Your task to perform on an android device: star an email in the gmail app Image 0: 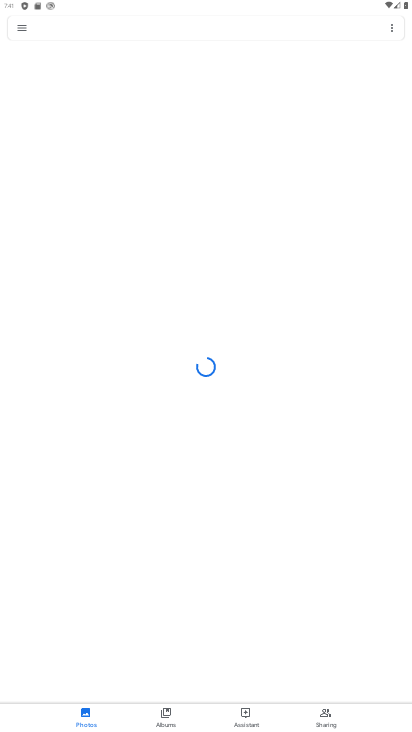
Step 0: drag from (254, 611) to (316, 394)
Your task to perform on an android device: star an email in the gmail app Image 1: 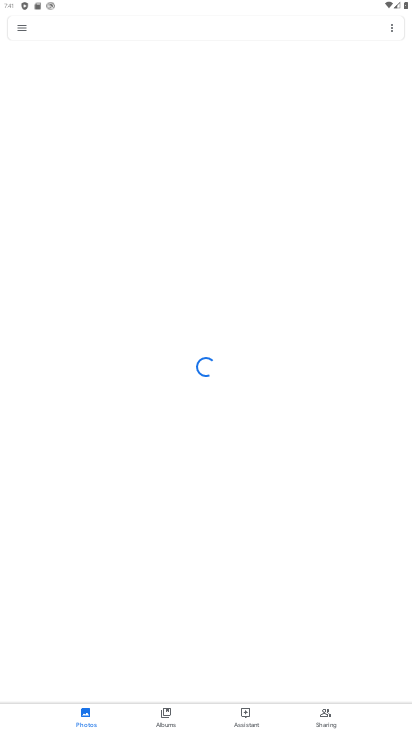
Step 1: press home button
Your task to perform on an android device: star an email in the gmail app Image 2: 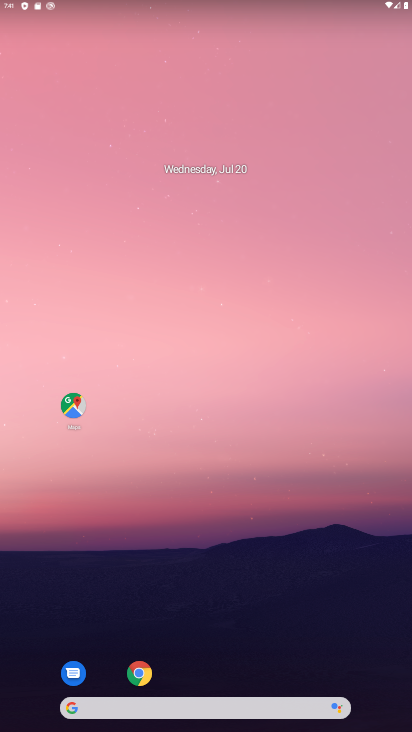
Step 2: drag from (182, 685) to (249, 78)
Your task to perform on an android device: star an email in the gmail app Image 3: 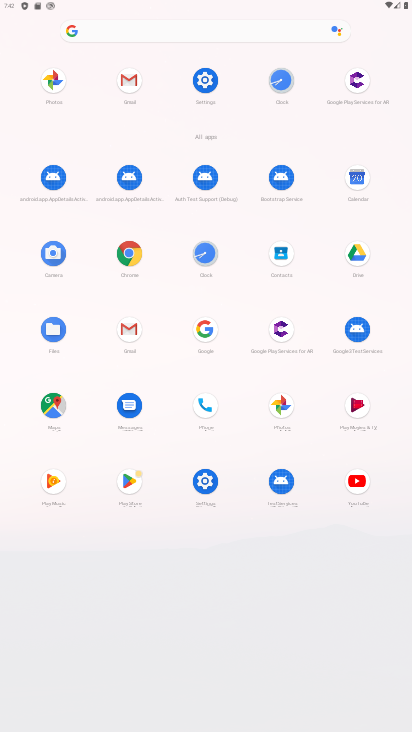
Step 3: click (128, 324)
Your task to perform on an android device: star an email in the gmail app Image 4: 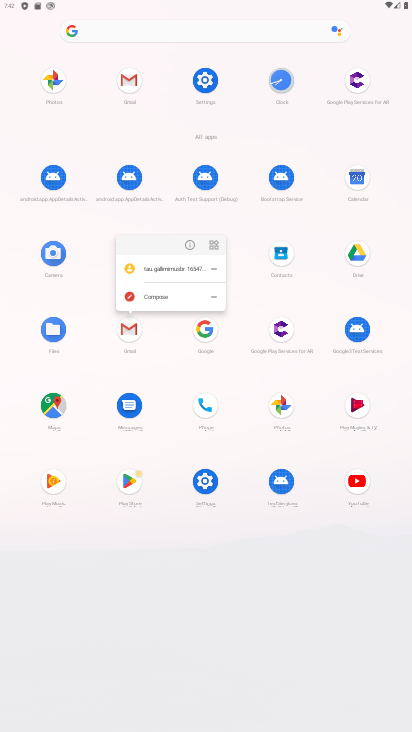
Step 4: click (192, 244)
Your task to perform on an android device: star an email in the gmail app Image 5: 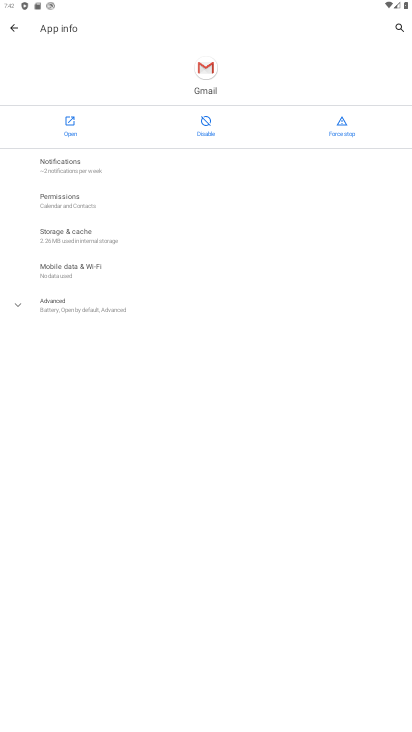
Step 5: click (70, 112)
Your task to perform on an android device: star an email in the gmail app Image 6: 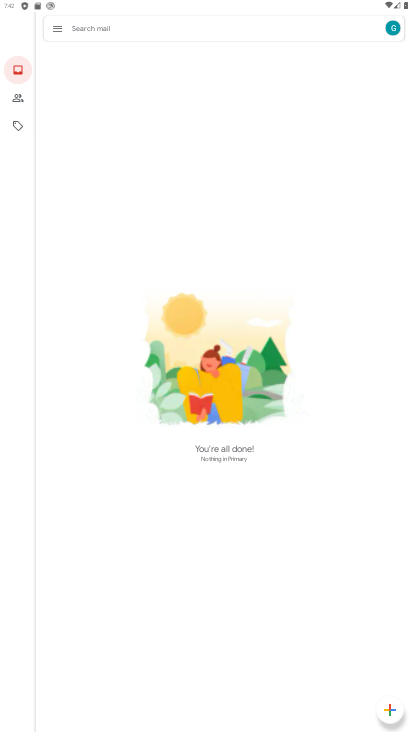
Step 6: drag from (263, 425) to (246, 338)
Your task to perform on an android device: star an email in the gmail app Image 7: 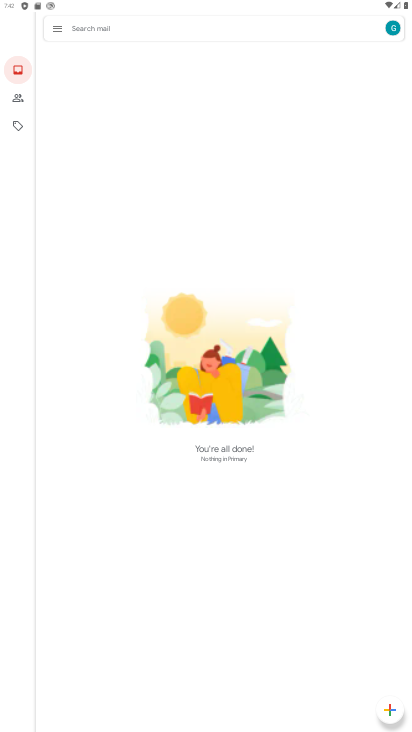
Step 7: click (59, 29)
Your task to perform on an android device: star an email in the gmail app Image 8: 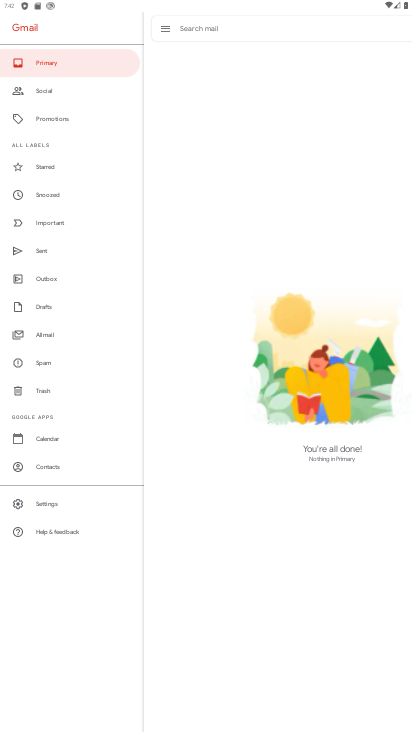
Step 8: click (392, 230)
Your task to perform on an android device: star an email in the gmail app Image 9: 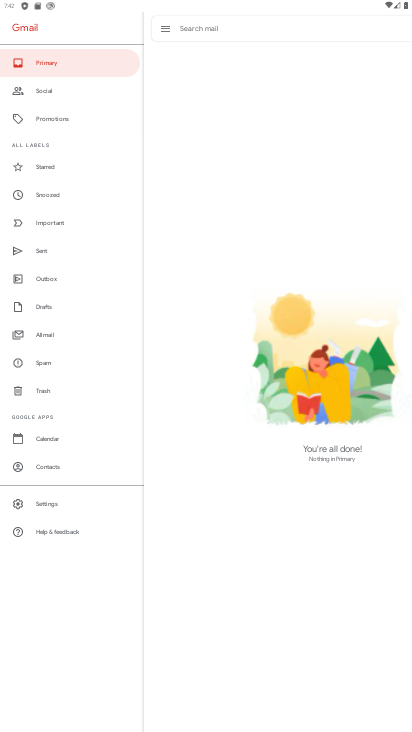
Step 9: task complete